Your task to perform on an android device: all mails in gmail Image 0: 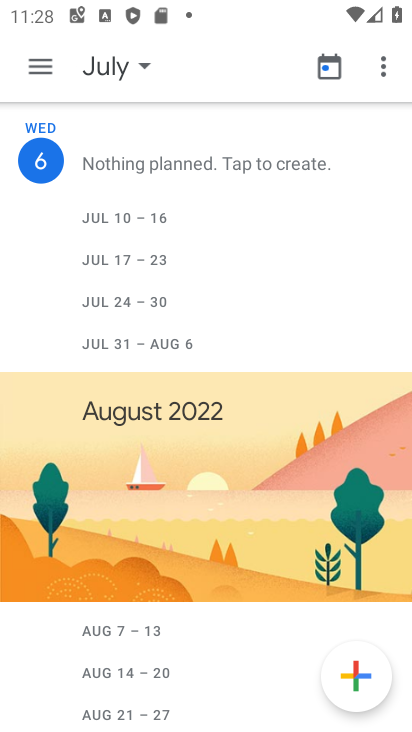
Step 0: press home button
Your task to perform on an android device: all mails in gmail Image 1: 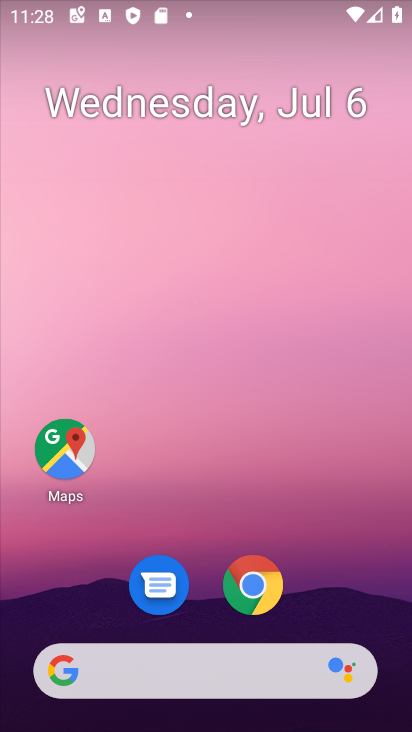
Step 1: drag from (214, 521) to (237, 19)
Your task to perform on an android device: all mails in gmail Image 2: 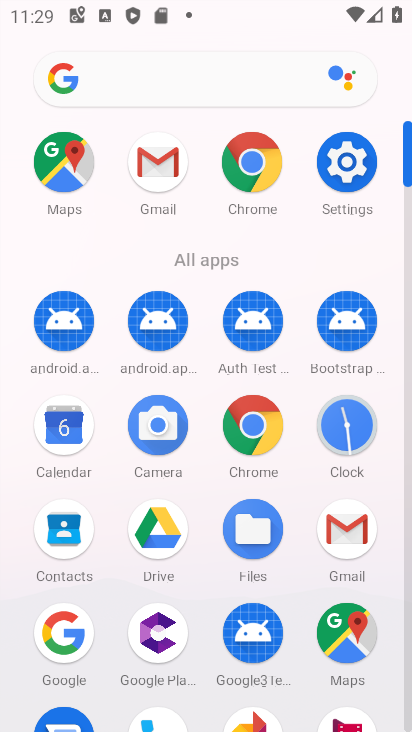
Step 2: click (157, 163)
Your task to perform on an android device: all mails in gmail Image 3: 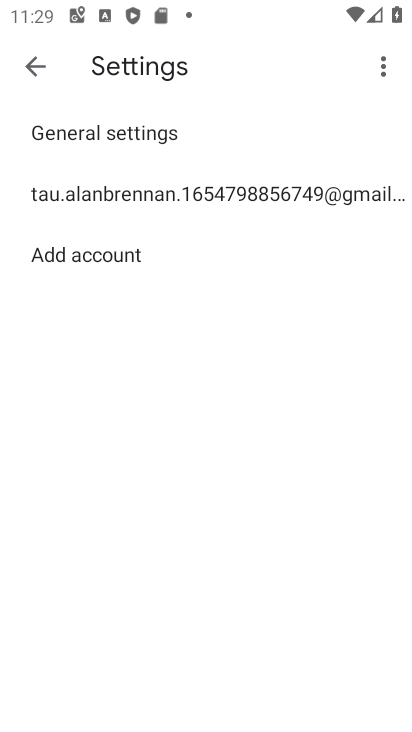
Step 3: click (27, 60)
Your task to perform on an android device: all mails in gmail Image 4: 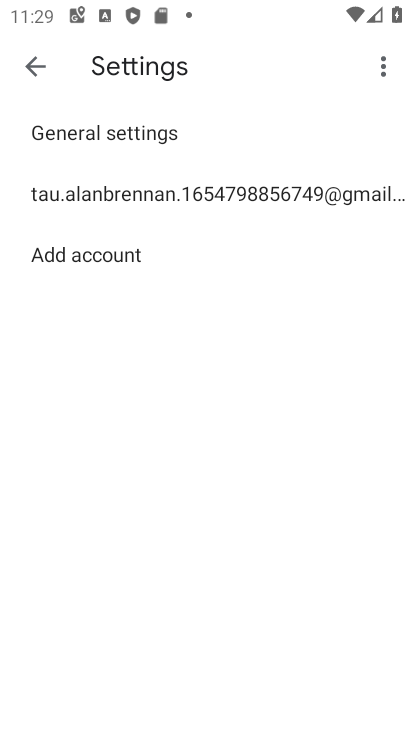
Step 4: click (35, 59)
Your task to perform on an android device: all mails in gmail Image 5: 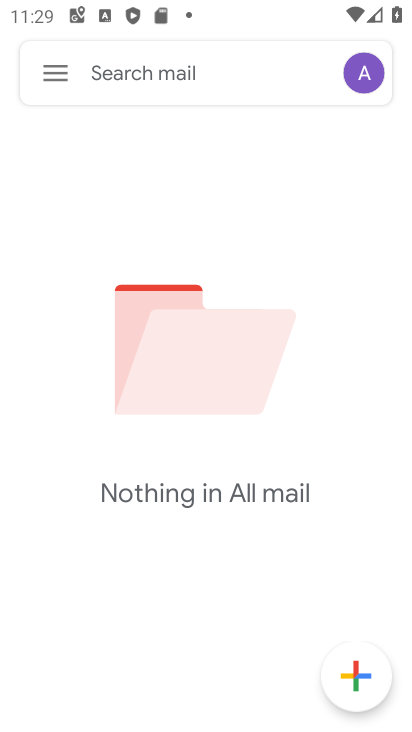
Step 5: task complete